Your task to perform on an android device: Go to ESPN.com Image 0: 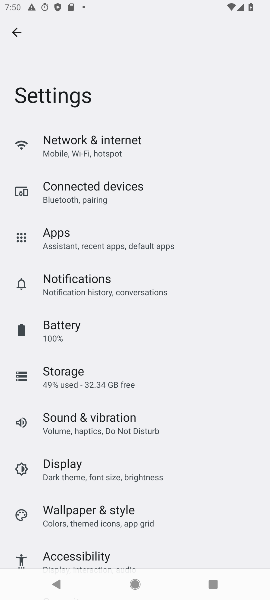
Step 0: drag from (67, 512) to (122, 237)
Your task to perform on an android device: Go to ESPN.com Image 1: 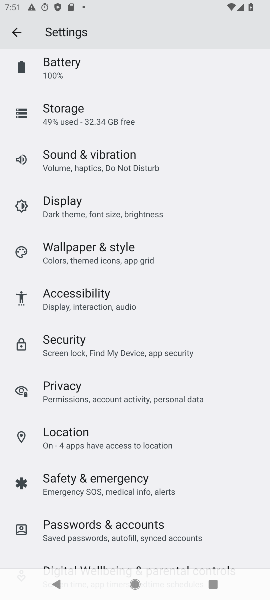
Step 1: press home button
Your task to perform on an android device: Go to ESPN.com Image 2: 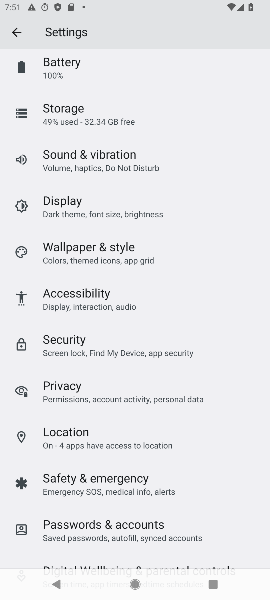
Step 2: press home button
Your task to perform on an android device: Go to ESPN.com Image 3: 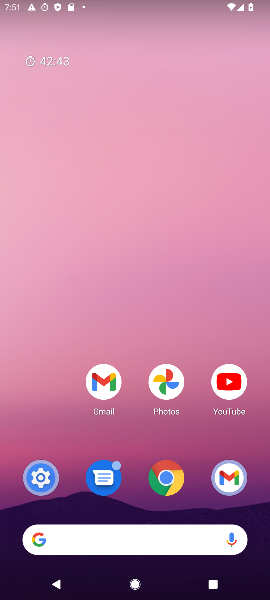
Step 3: drag from (142, 497) to (150, 134)
Your task to perform on an android device: Go to ESPN.com Image 4: 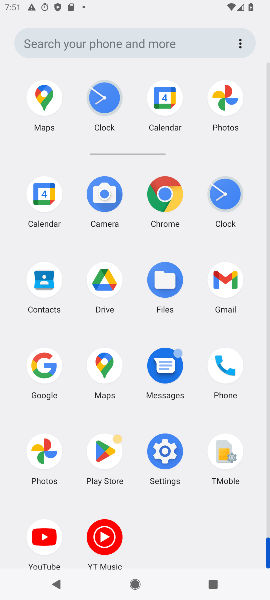
Step 4: drag from (113, 444) to (129, 195)
Your task to perform on an android device: Go to ESPN.com Image 5: 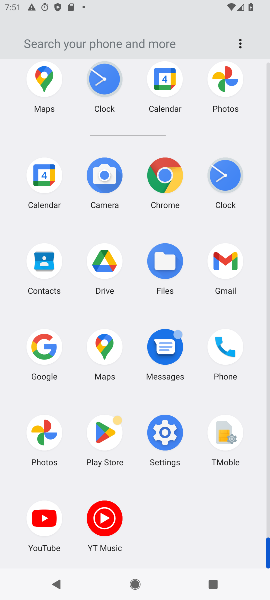
Step 5: click (67, 41)
Your task to perform on an android device: Go to ESPN.com Image 6: 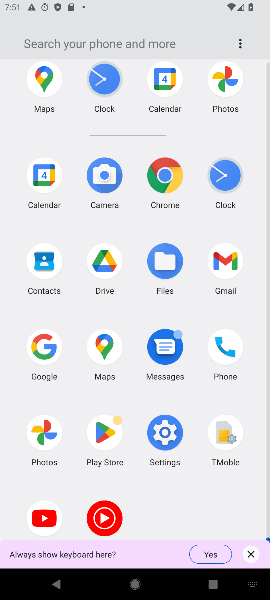
Step 6: click (162, 180)
Your task to perform on an android device: Go to ESPN.com Image 7: 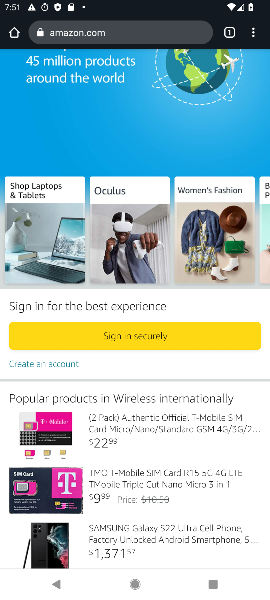
Step 7: click (138, 35)
Your task to perform on an android device: Go to ESPN.com Image 8: 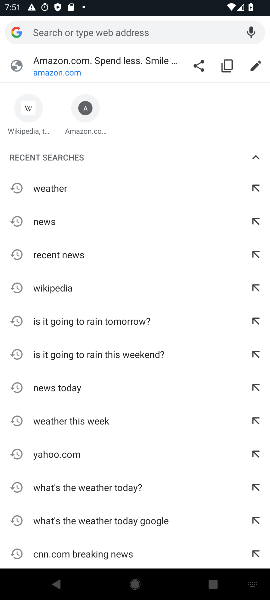
Step 8: type "ESPN.com"
Your task to perform on an android device: Go to ESPN.com Image 9: 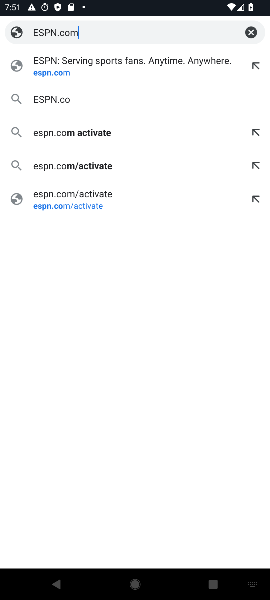
Step 9: type ""
Your task to perform on an android device: Go to ESPN.com Image 10: 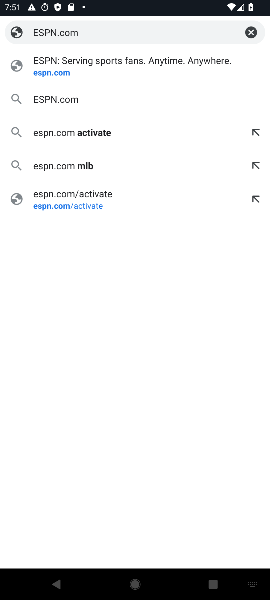
Step 10: click (69, 60)
Your task to perform on an android device: Go to ESPN.com Image 11: 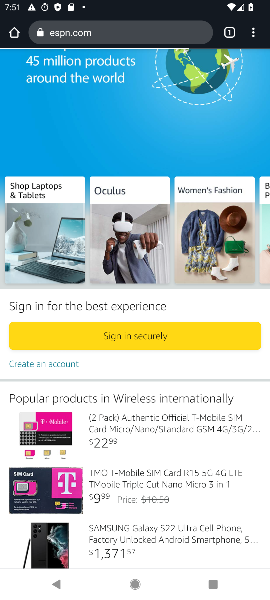
Step 11: task complete